Your task to perform on an android device: What's on my calendar tomorrow? Image 0: 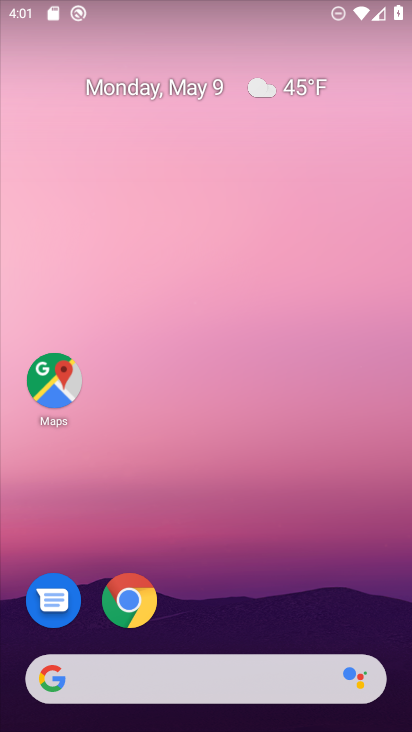
Step 0: drag from (230, 529) to (242, 1)
Your task to perform on an android device: What's on my calendar tomorrow? Image 1: 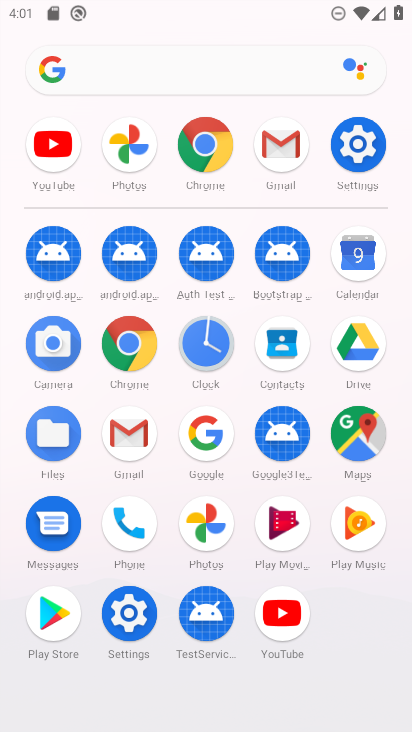
Step 1: click (366, 247)
Your task to perform on an android device: What's on my calendar tomorrow? Image 2: 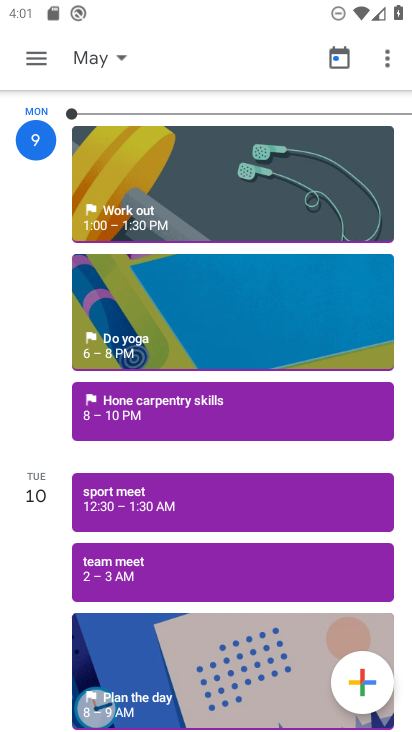
Step 2: click (347, 62)
Your task to perform on an android device: What's on my calendar tomorrow? Image 3: 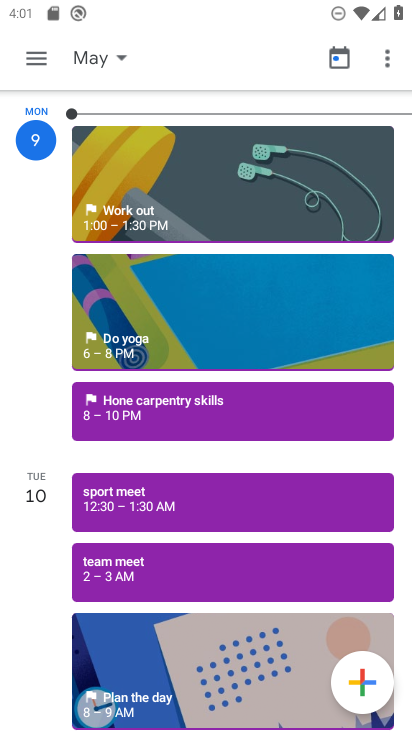
Step 3: click (24, 488)
Your task to perform on an android device: What's on my calendar tomorrow? Image 4: 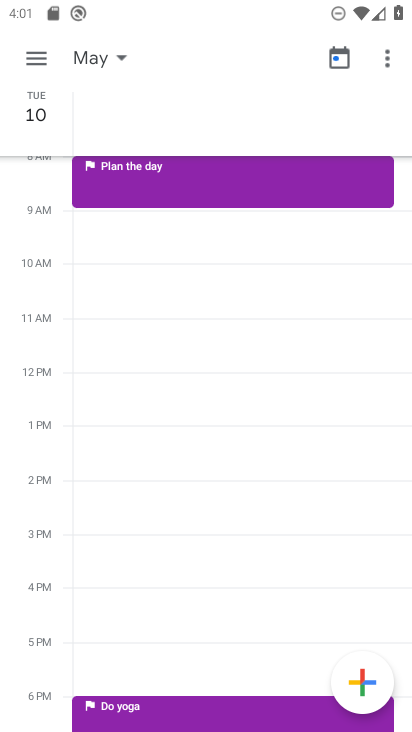
Step 4: task complete